Your task to perform on an android device: allow notifications from all sites in the chrome app Image 0: 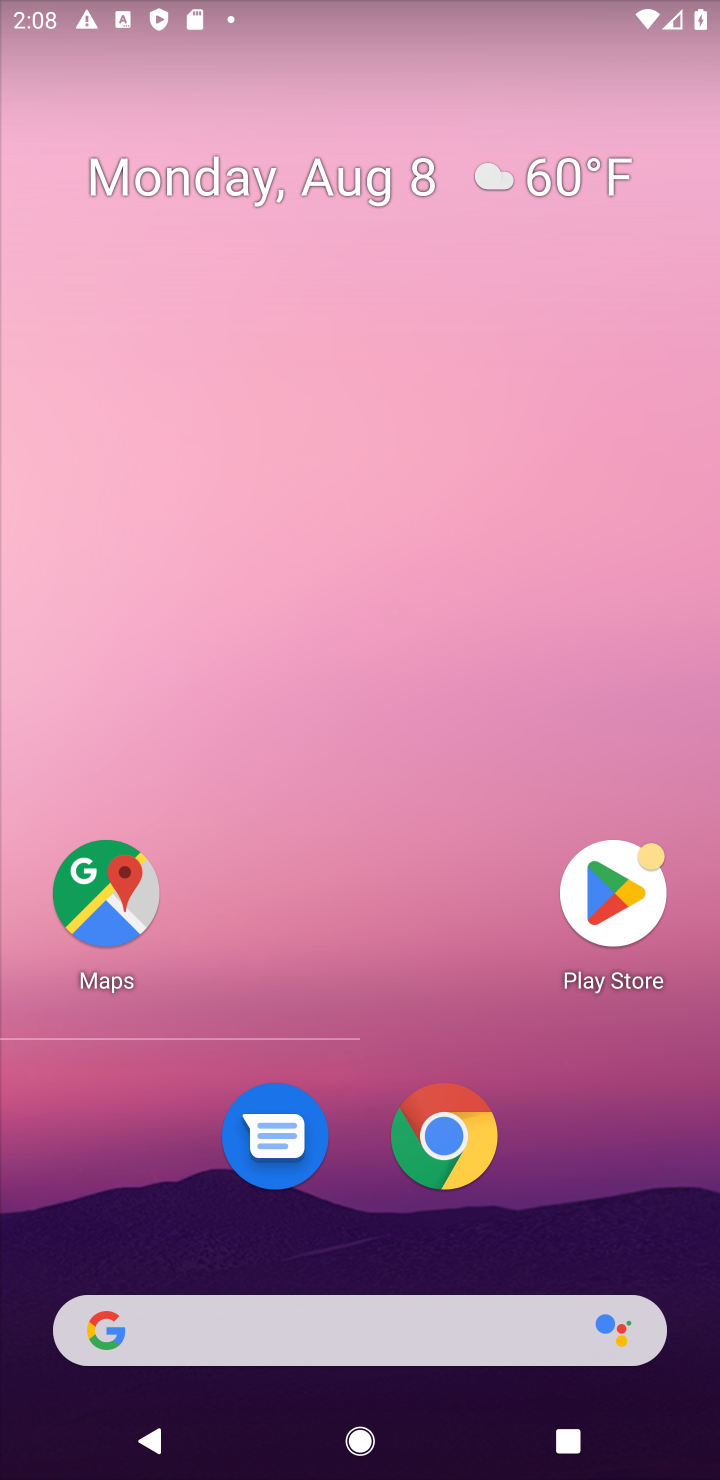
Step 0: click (428, 1131)
Your task to perform on an android device: allow notifications from all sites in the chrome app Image 1: 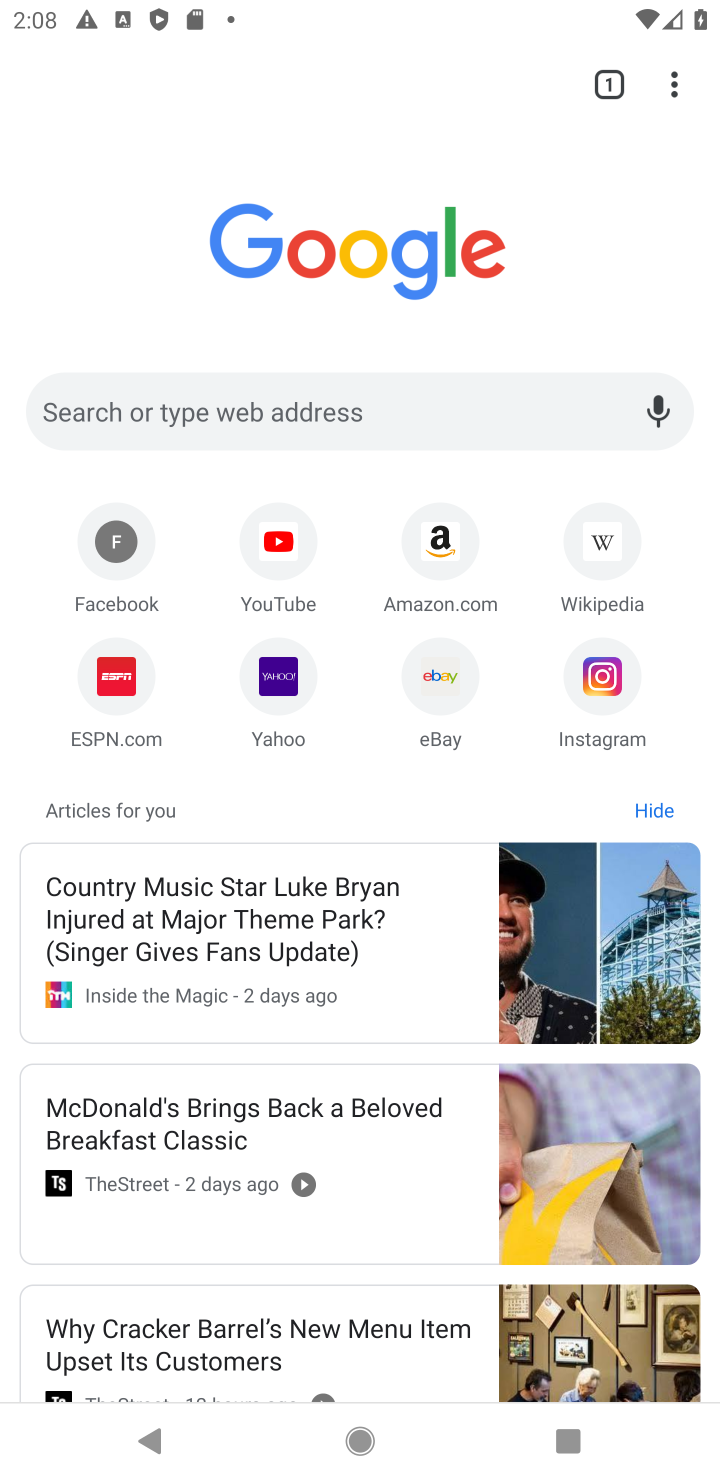
Step 1: click (677, 89)
Your task to perform on an android device: allow notifications from all sites in the chrome app Image 2: 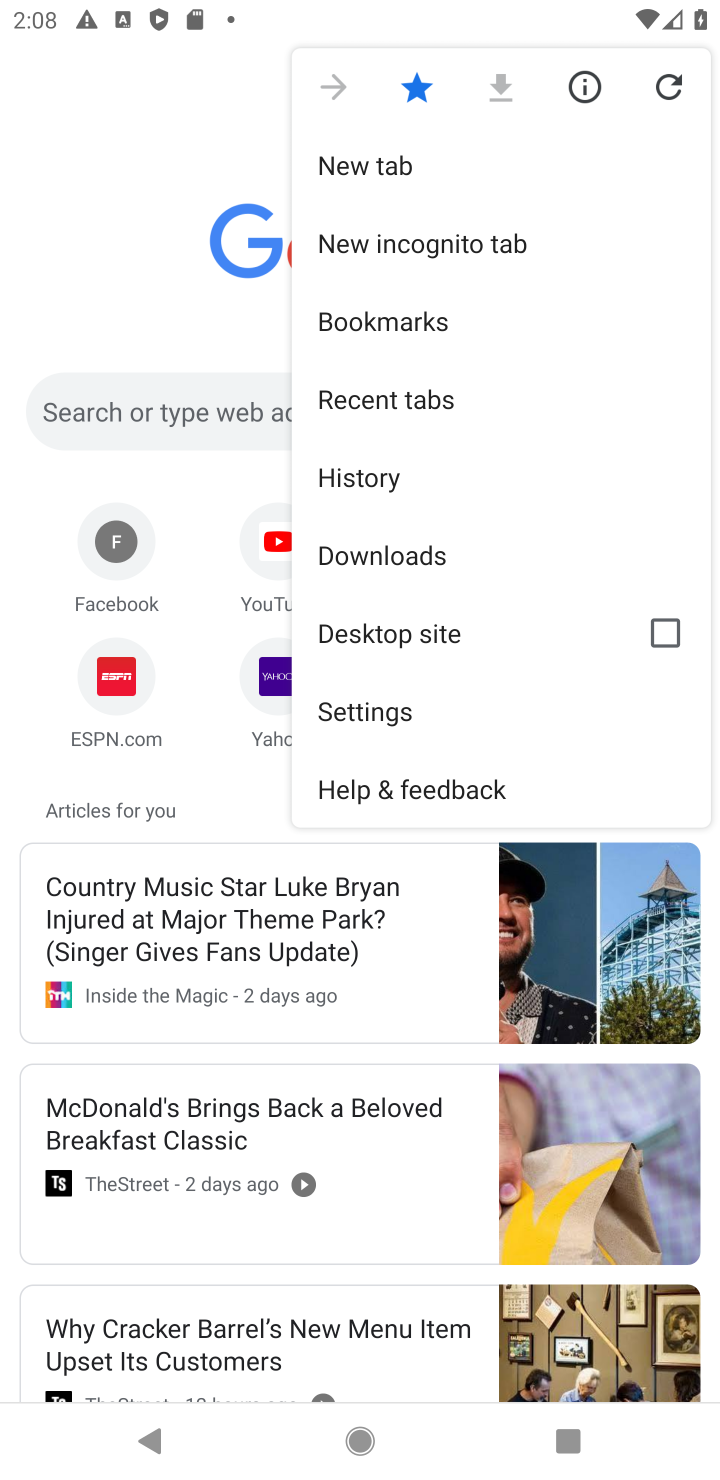
Step 2: click (394, 724)
Your task to perform on an android device: allow notifications from all sites in the chrome app Image 3: 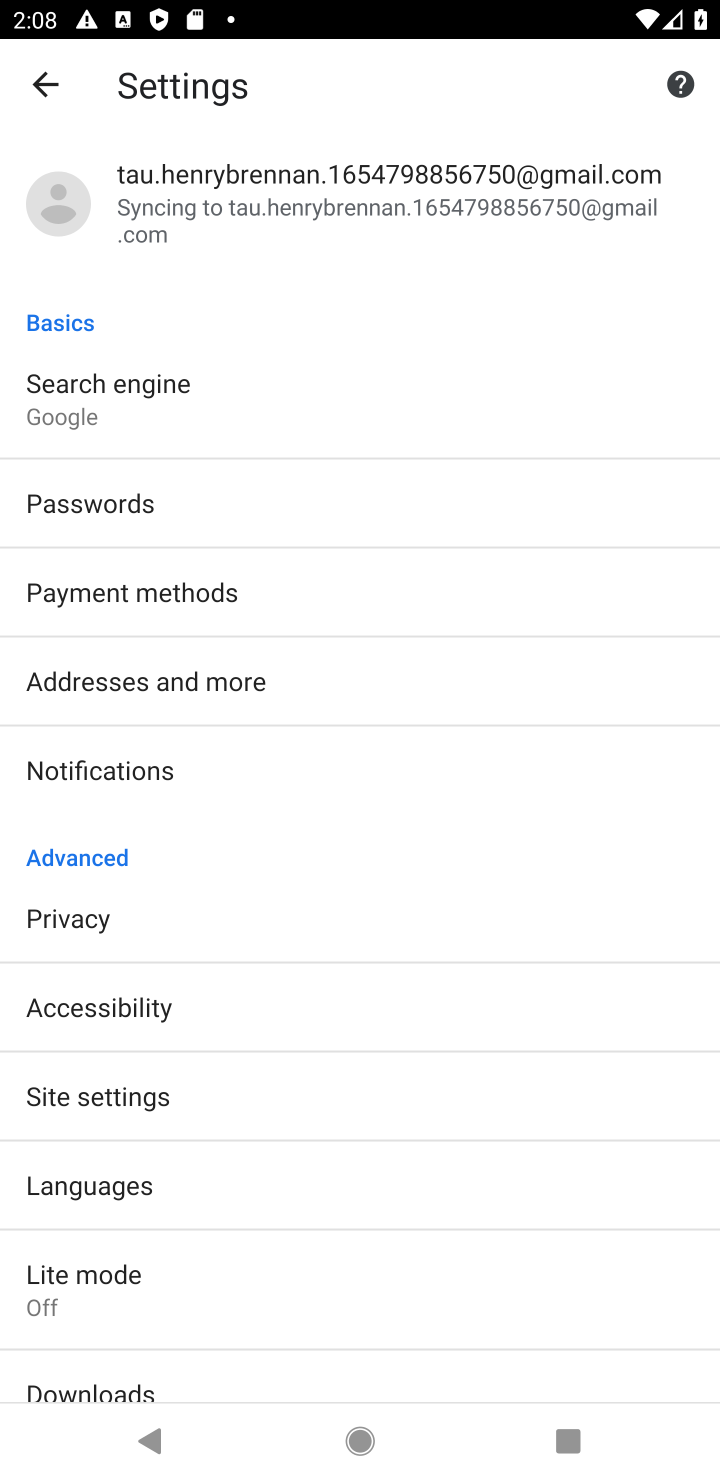
Step 3: click (102, 1096)
Your task to perform on an android device: allow notifications from all sites in the chrome app Image 4: 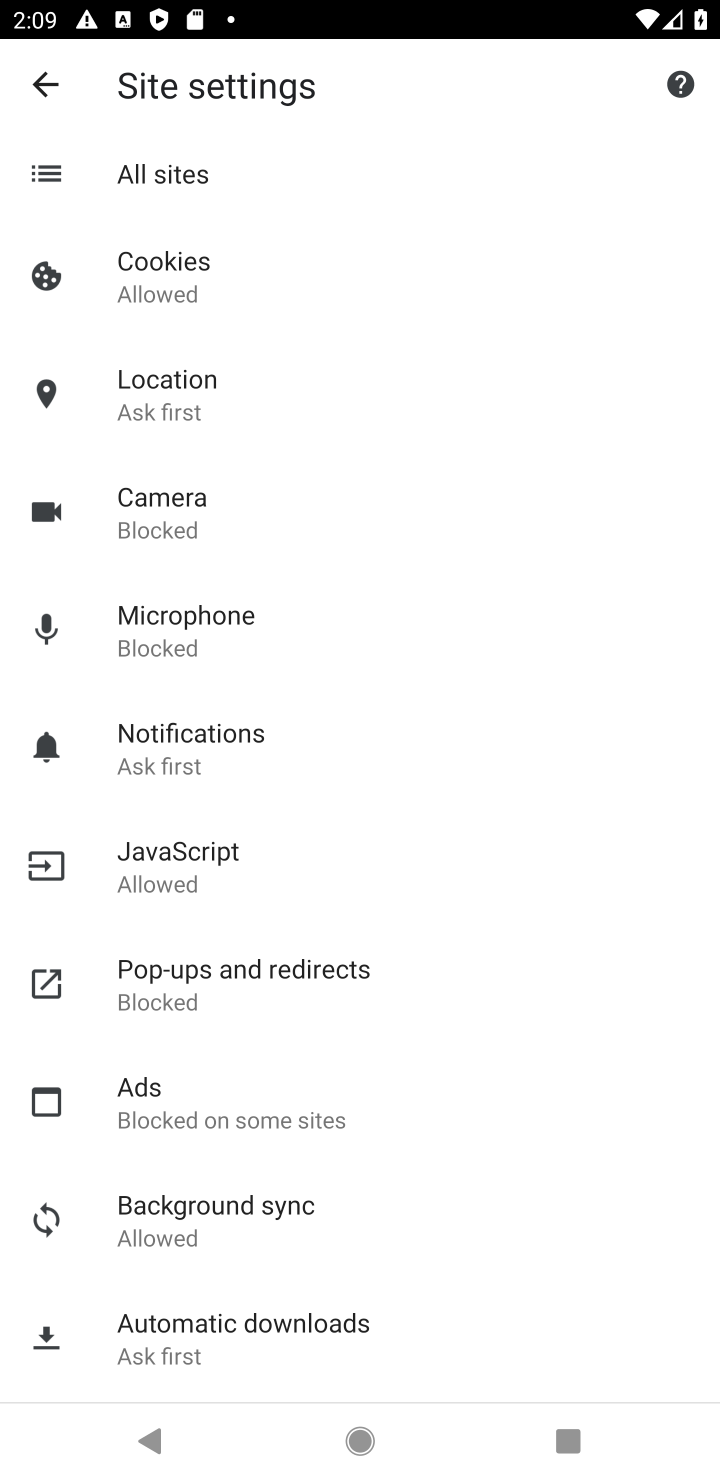
Step 4: task complete